Your task to perform on an android device: Go to Wikipedia Image 0: 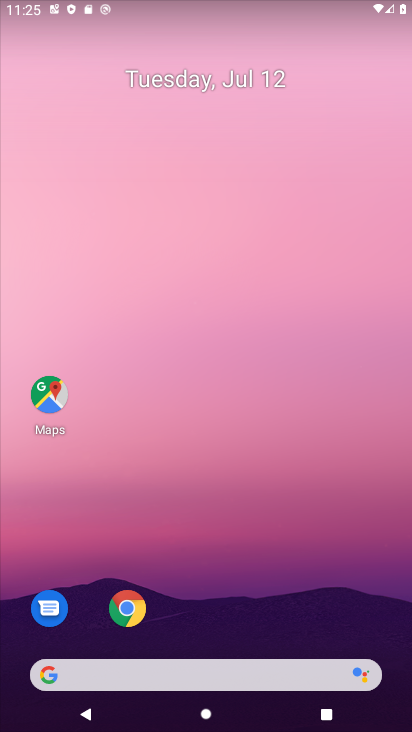
Step 0: click (126, 607)
Your task to perform on an android device: Go to Wikipedia Image 1: 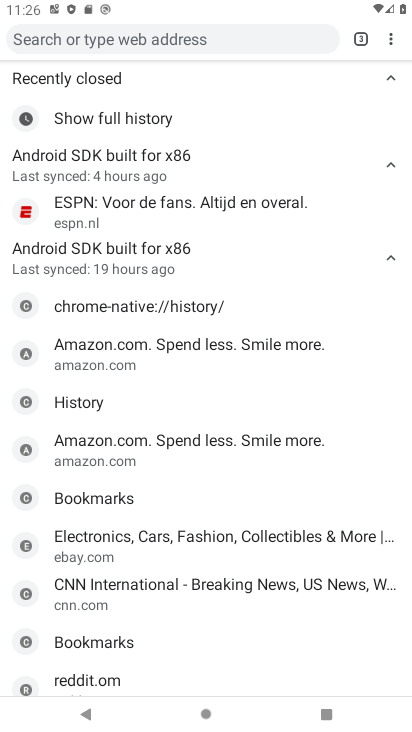
Step 1: click (392, 39)
Your task to perform on an android device: Go to Wikipedia Image 2: 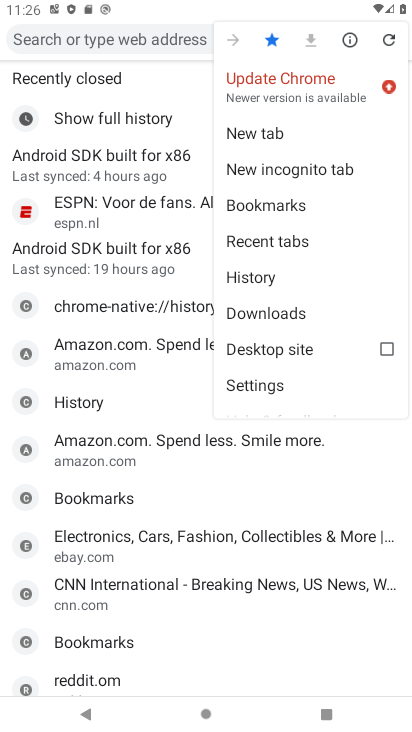
Step 2: click (252, 137)
Your task to perform on an android device: Go to Wikipedia Image 3: 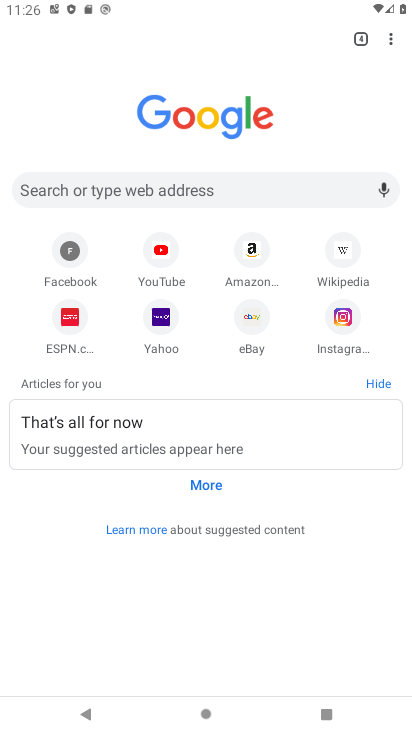
Step 3: click (340, 247)
Your task to perform on an android device: Go to Wikipedia Image 4: 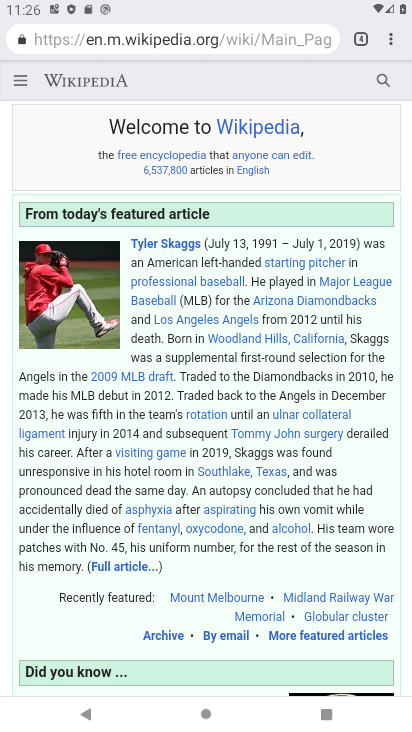
Step 4: task complete